Your task to perform on an android device: set default search engine in the chrome app Image 0: 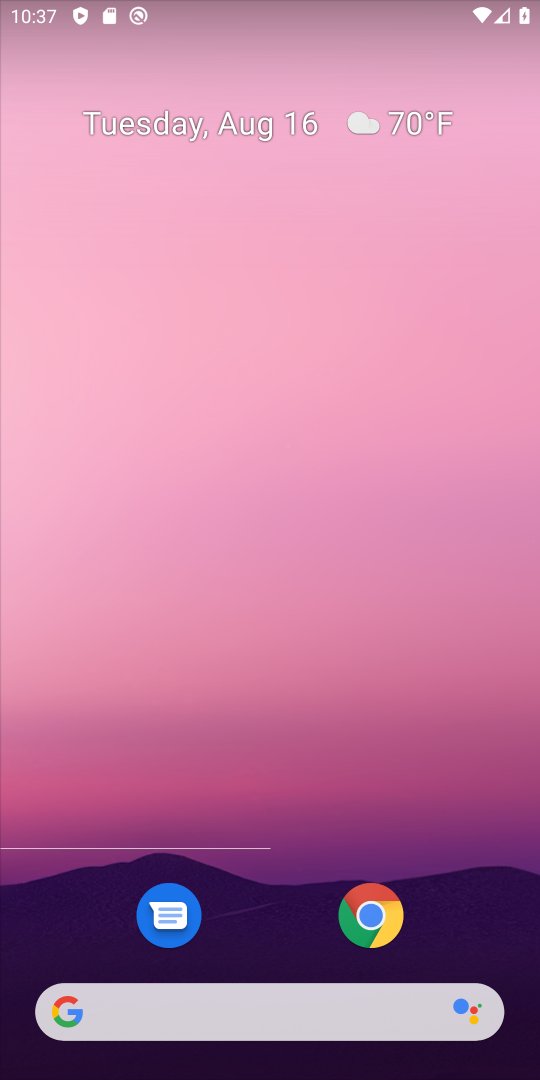
Step 0: press home button
Your task to perform on an android device: set default search engine in the chrome app Image 1: 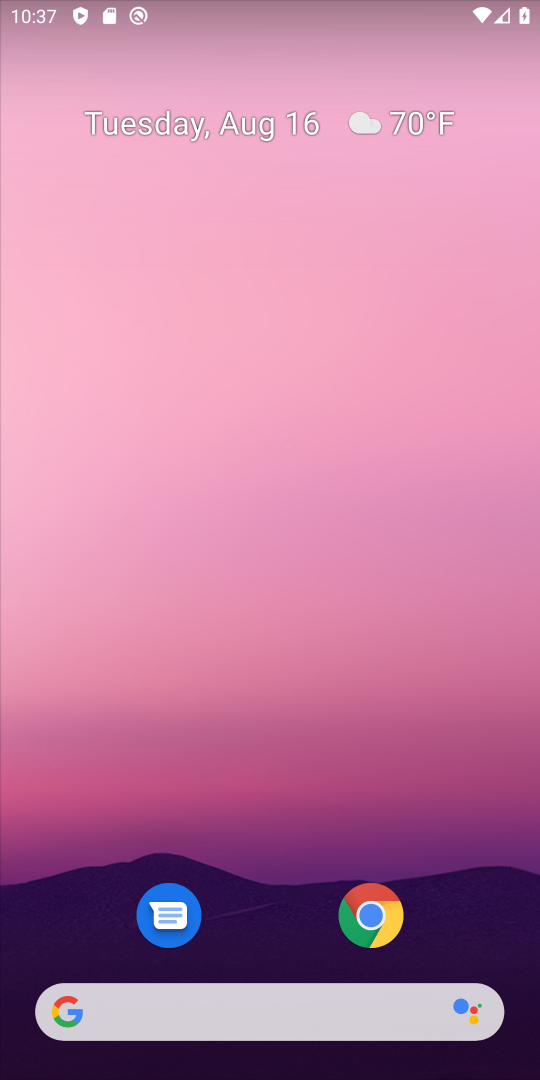
Step 1: click (361, 920)
Your task to perform on an android device: set default search engine in the chrome app Image 2: 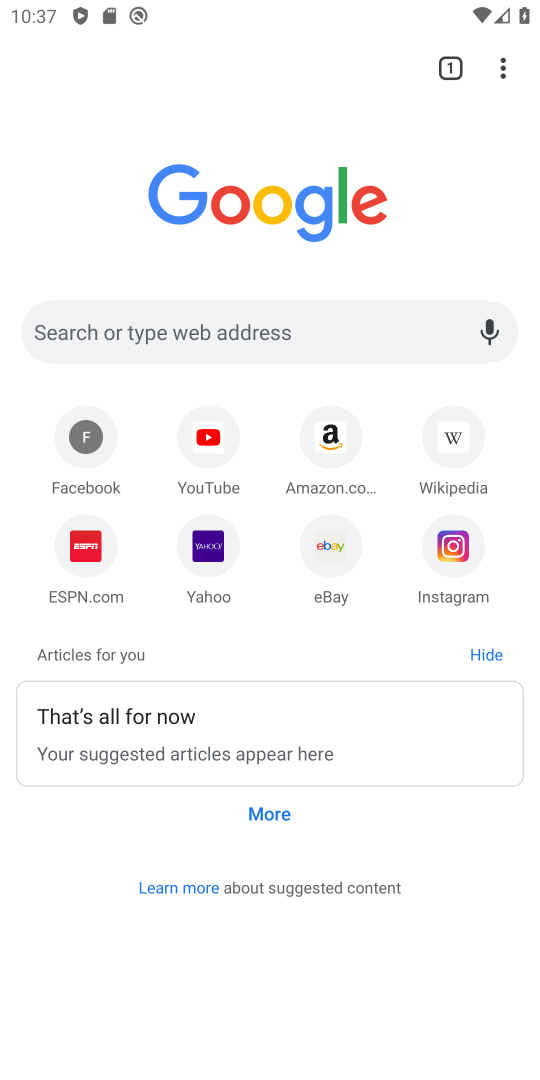
Step 2: click (492, 62)
Your task to perform on an android device: set default search engine in the chrome app Image 3: 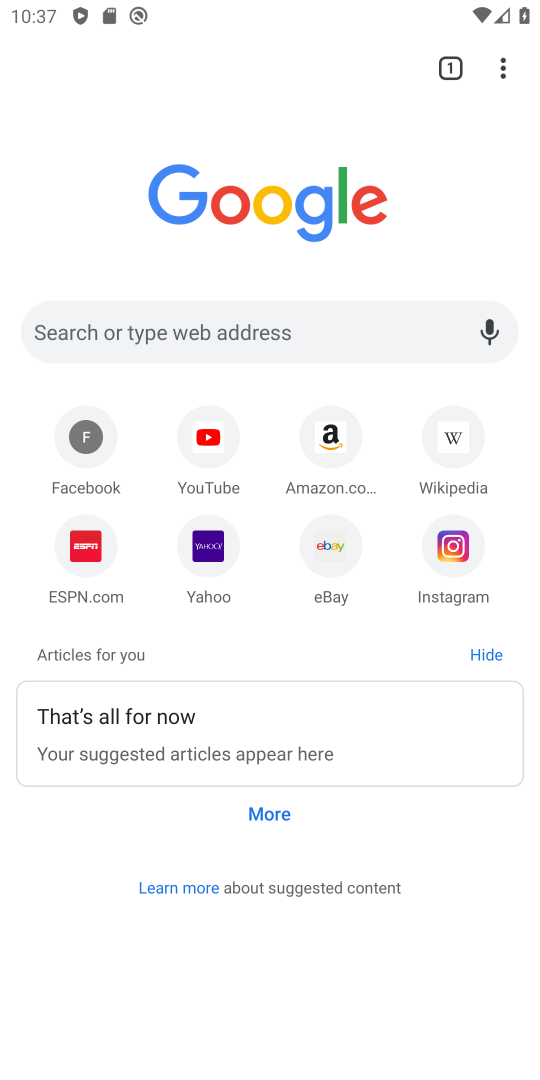
Step 3: click (492, 62)
Your task to perform on an android device: set default search engine in the chrome app Image 4: 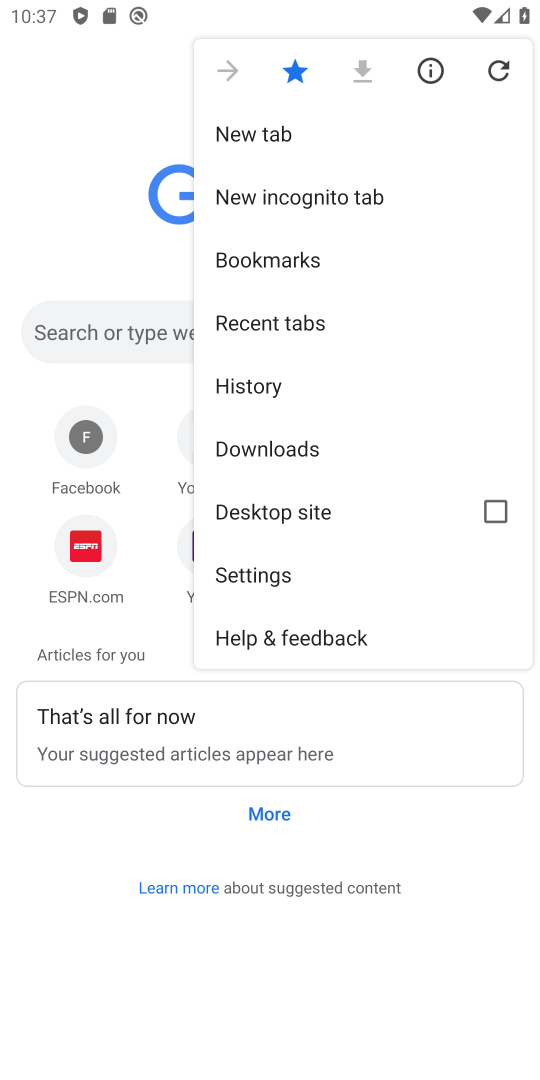
Step 4: click (257, 556)
Your task to perform on an android device: set default search engine in the chrome app Image 5: 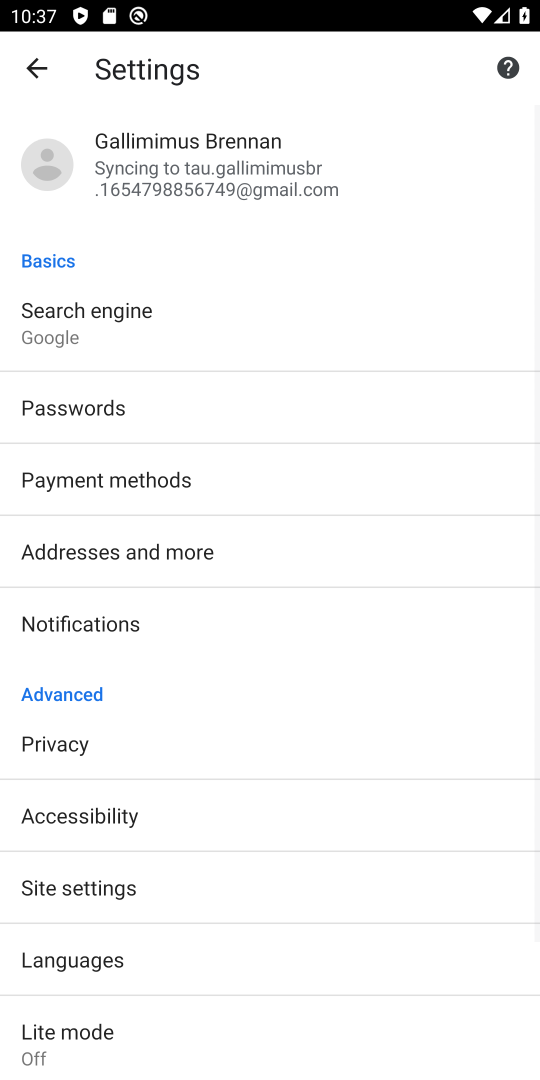
Step 5: click (84, 341)
Your task to perform on an android device: set default search engine in the chrome app Image 6: 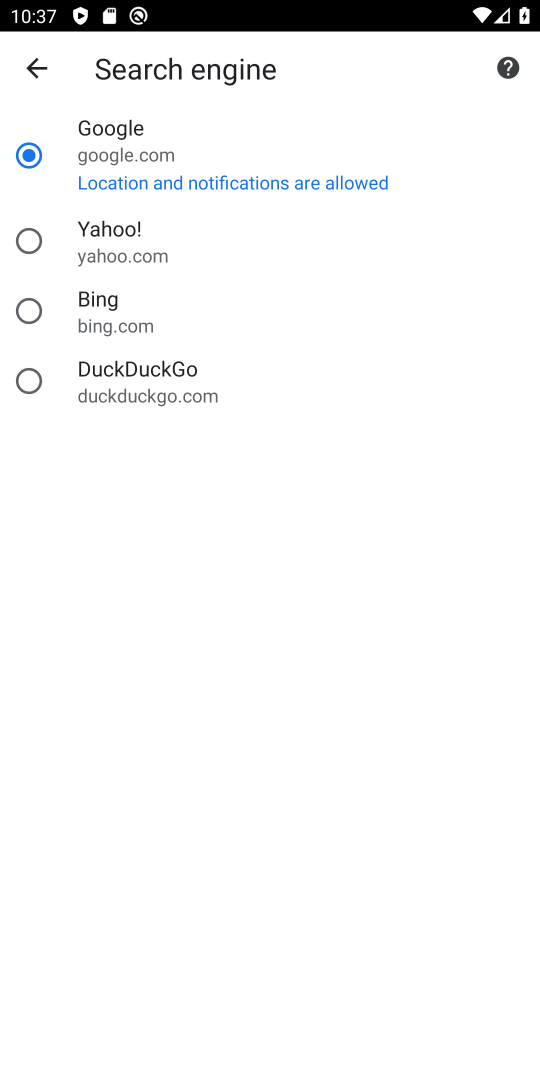
Step 6: click (42, 156)
Your task to perform on an android device: set default search engine in the chrome app Image 7: 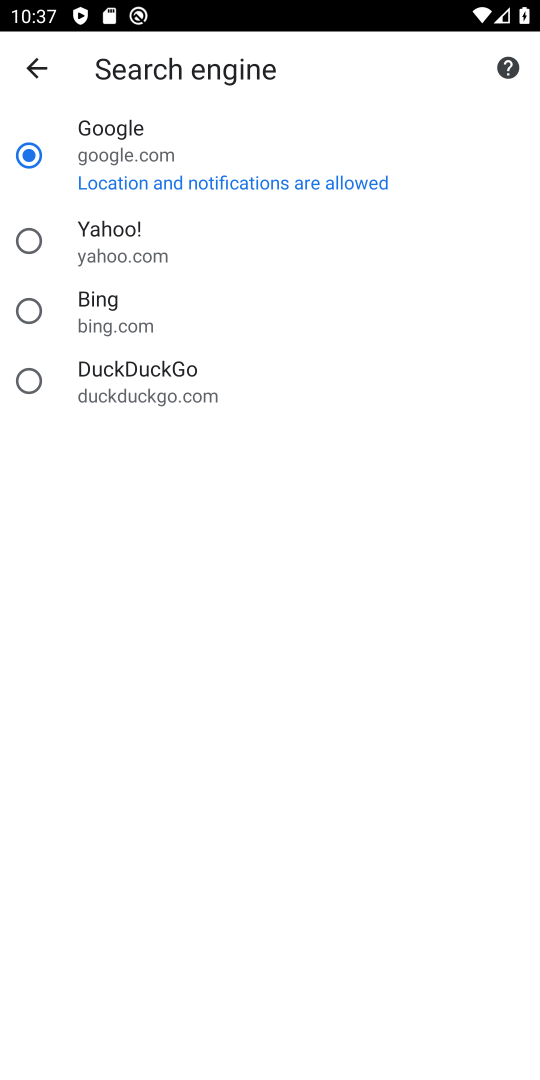
Step 7: task complete